Your task to perform on an android device: turn on translation in the chrome app Image 0: 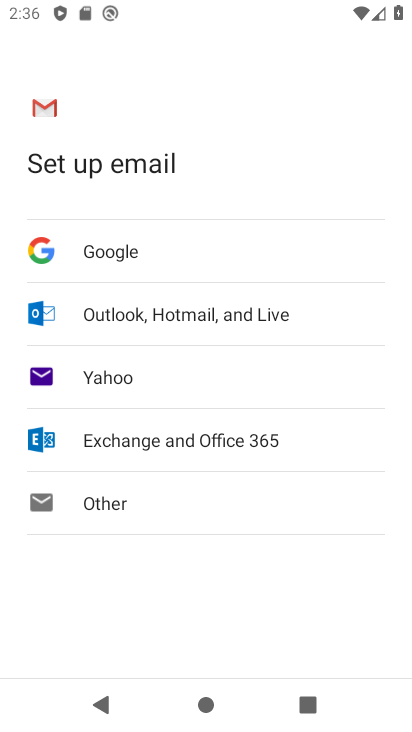
Step 0: press back button
Your task to perform on an android device: turn on translation in the chrome app Image 1: 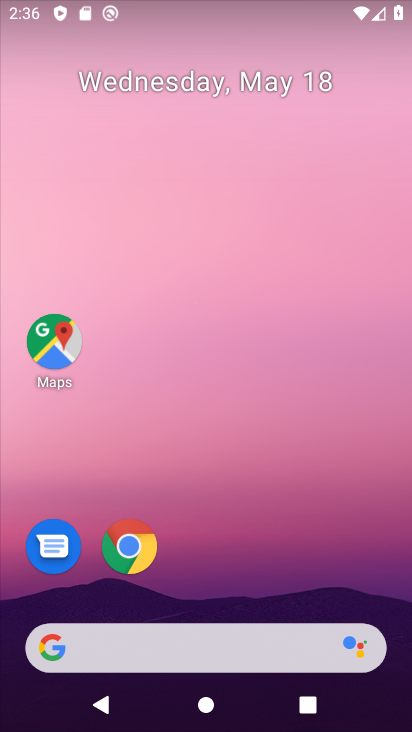
Step 1: drag from (281, 621) to (254, 143)
Your task to perform on an android device: turn on translation in the chrome app Image 2: 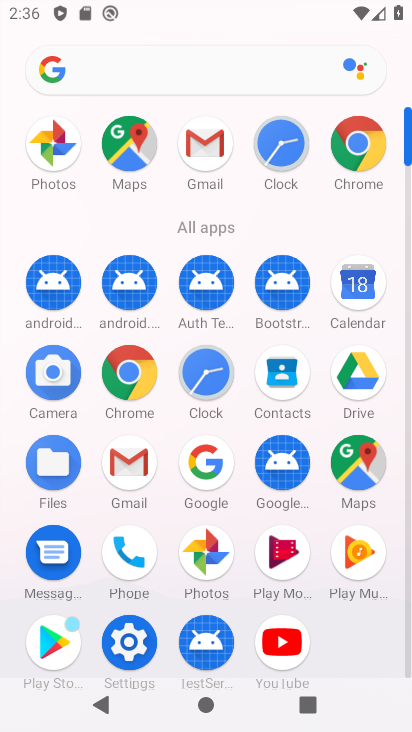
Step 2: click (348, 148)
Your task to perform on an android device: turn on translation in the chrome app Image 3: 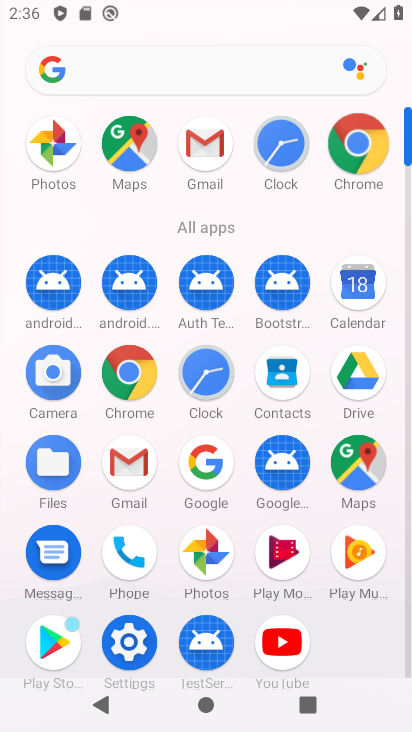
Step 3: click (354, 147)
Your task to perform on an android device: turn on translation in the chrome app Image 4: 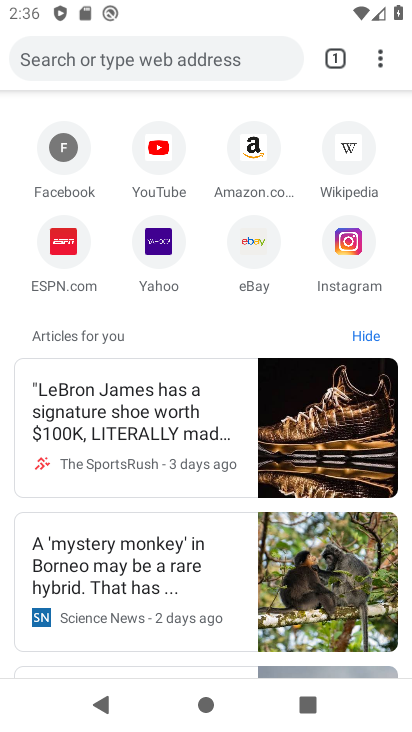
Step 4: click (377, 54)
Your task to perform on an android device: turn on translation in the chrome app Image 5: 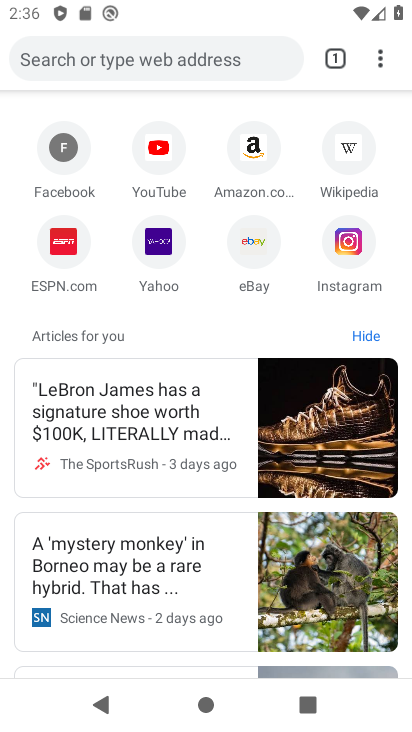
Step 5: click (379, 53)
Your task to perform on an android device: turn on translation in the chrome app Image 6: 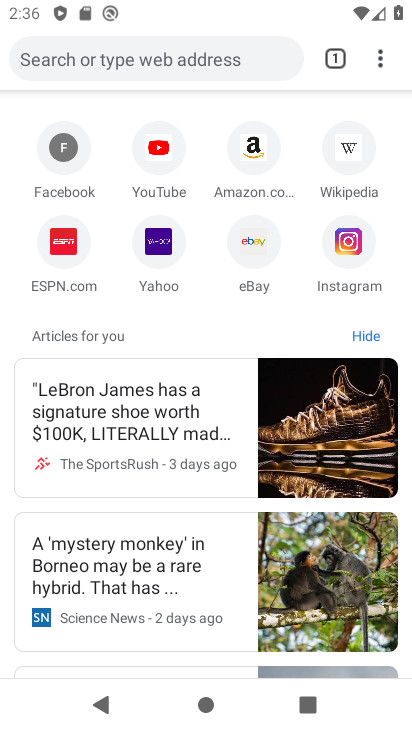
Step 6: drag from (373, 66) to (158, 490)
Your task to perform on an android device: turn on translation in the chrome app Image 7: 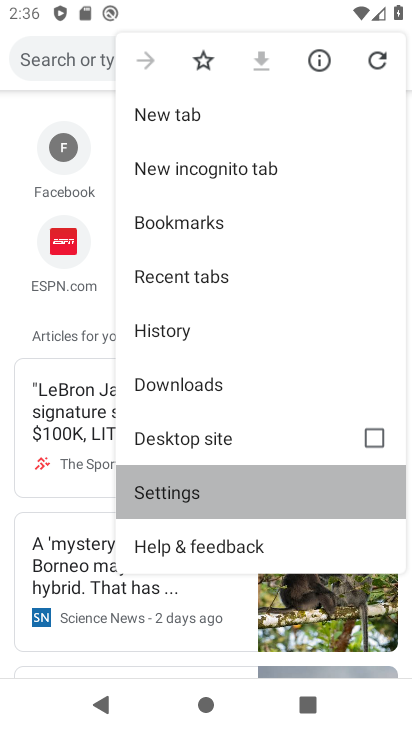
Step 7: click (162, 487)
Your task to perform on an android device: turn on translation in the chrome app Image 8: 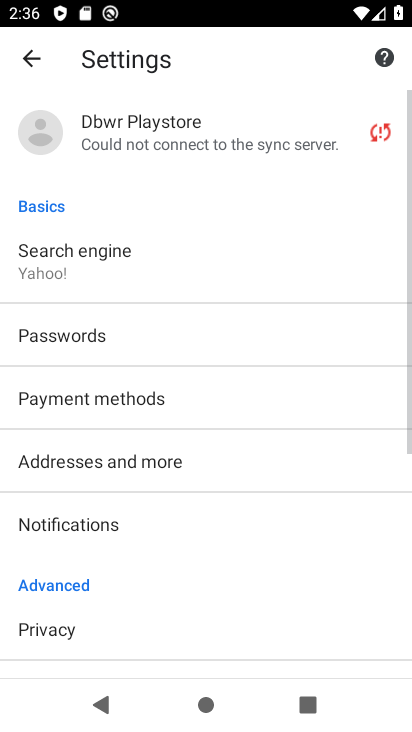
Step 8: drag from (84, 494) to (73, 190)
Your task to perform on an android device: turn on translation in the chrome app Image 9: 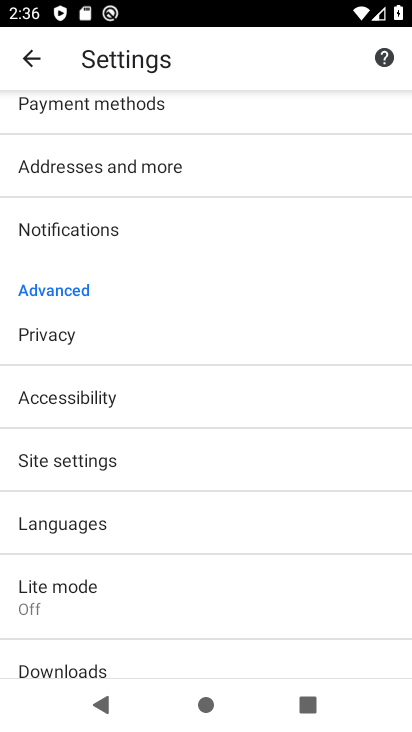
Step 9: click (66, 523)
Your task to perform on an android device: turn on translation in the chrome app Image 10: 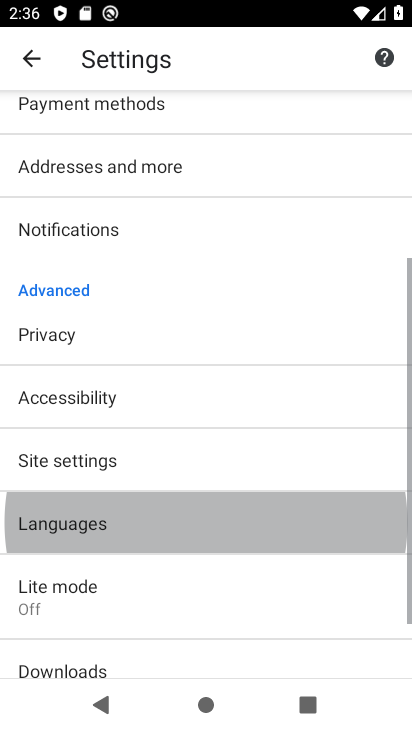
Step 10: click (66, 523)
Your task to perform on an android device: turn on translation in the chrome app Image 11: 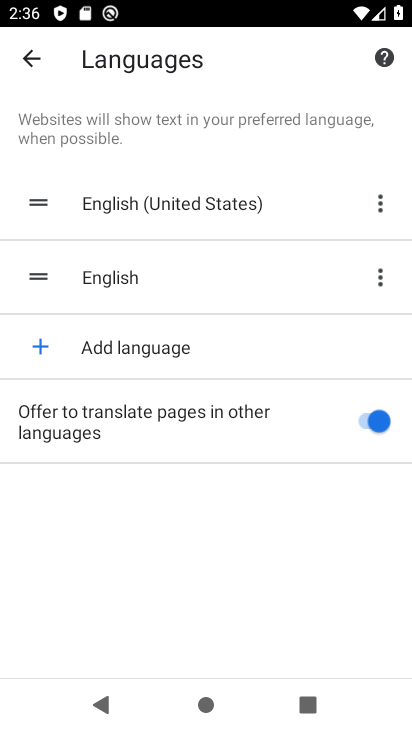
Step 11: task complete